Your task to perform on an android device: add a contact in the contacts app Image 0: 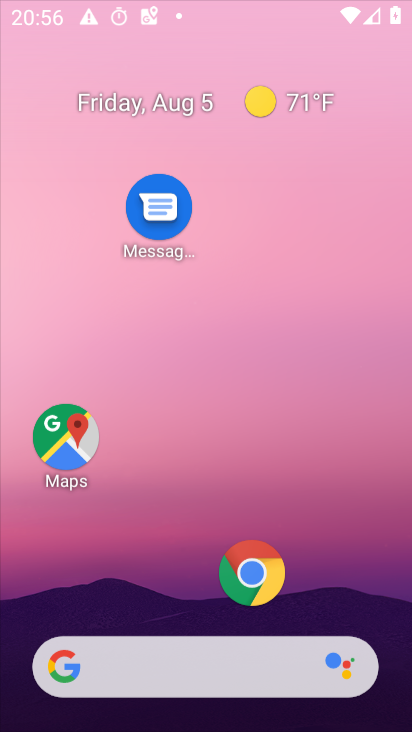
Step 0: press home button
Your task to perform on an android device: add a contact in the contacts app Image 1: 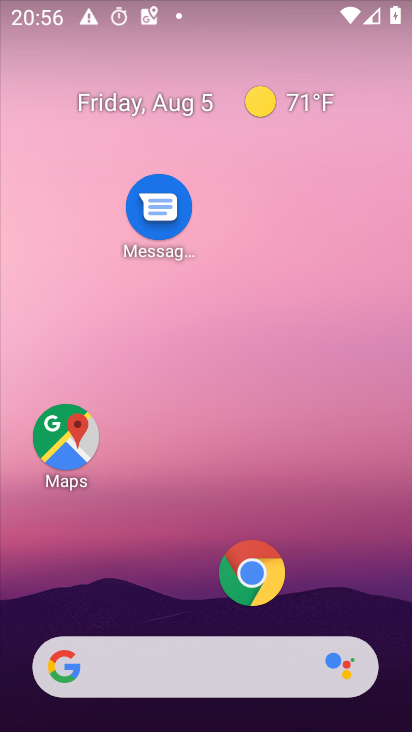
Step 1: drag from (202, 610) to (227, 77)
Your task to perform on an android device: add a contact in the contacts app Image 2: 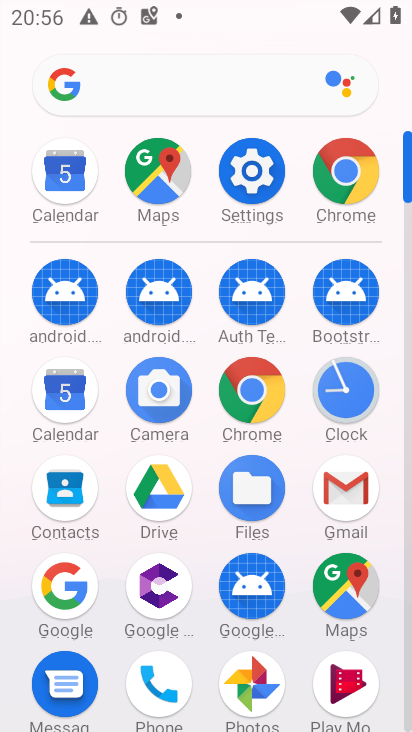
Step 2: click (62, 384)
Your task to perform on an android device: add a contact in the contacts app Image 3: 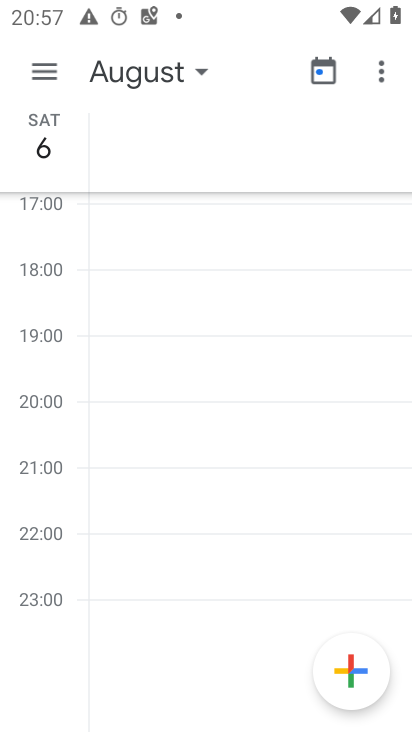
Step 3: press home button
Your task to perform on an android device: add a contact in the contacts app Image 4: 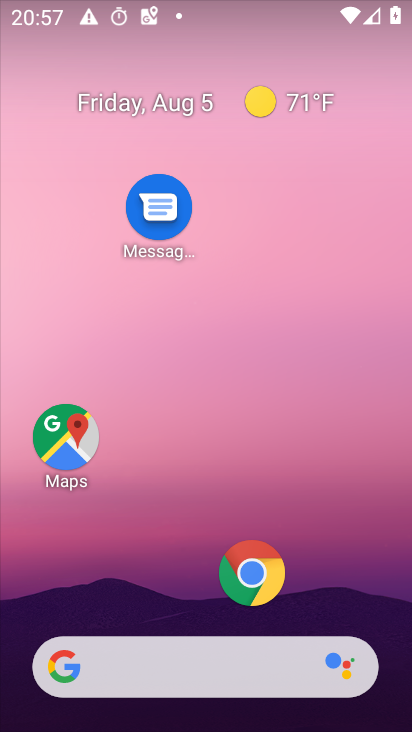
Step 4: drag from (184, 608) to (254, 118)
Your task to perform on an android device: add a contact in the contacts app Image 5: 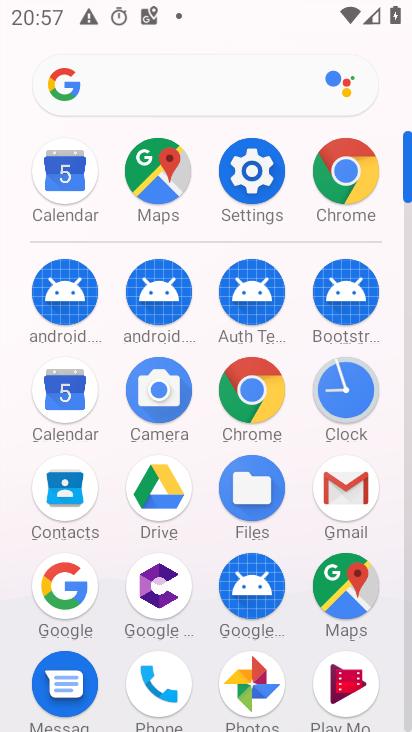
Step 5: drag from (199, 629) to (235, 265)
Your task to perform on an android device: add a contact in the contacts app Image 6: 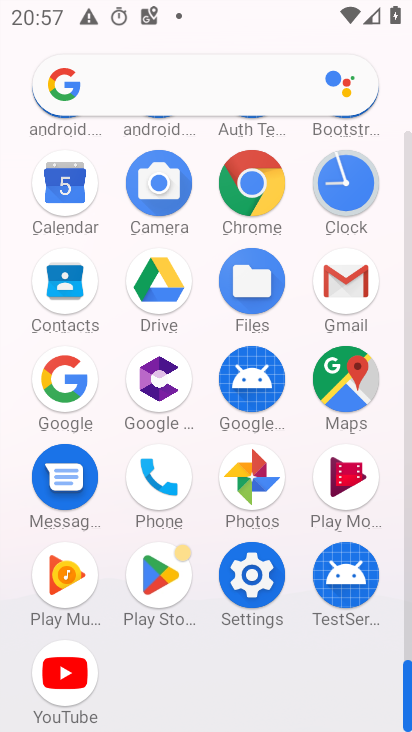
Step 6: click (66, 288)
Your task to perform on an android device: add a contact in the contacts app Image 7: 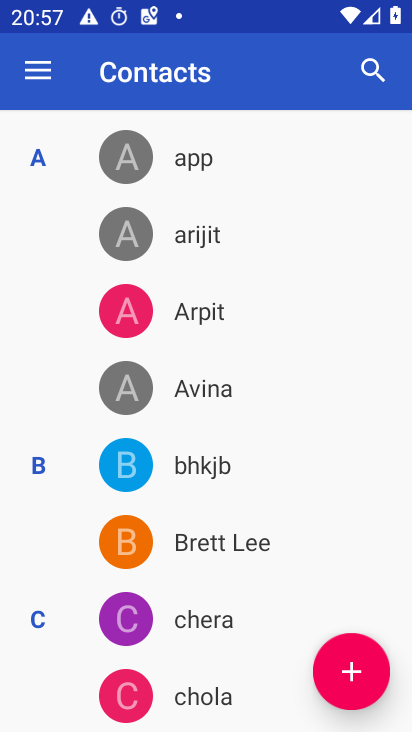
Step 7: click (352, 660)
Your task to perform on an android device: add a contact in the contacts app Image 8: 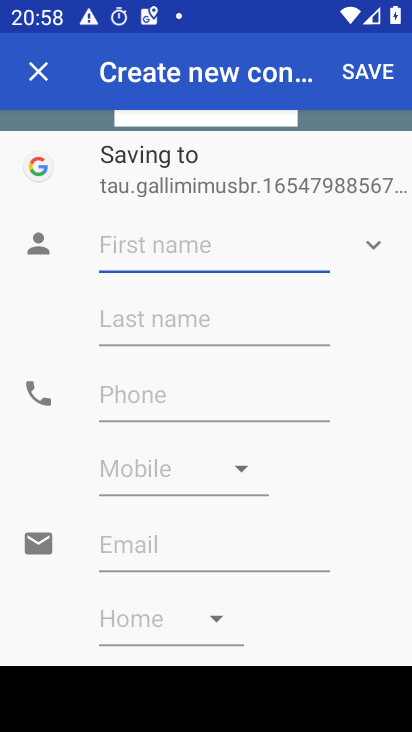
Step 8: type "aparna"
Your task to perform on an android device: add a contact in the contacts app Image 9: 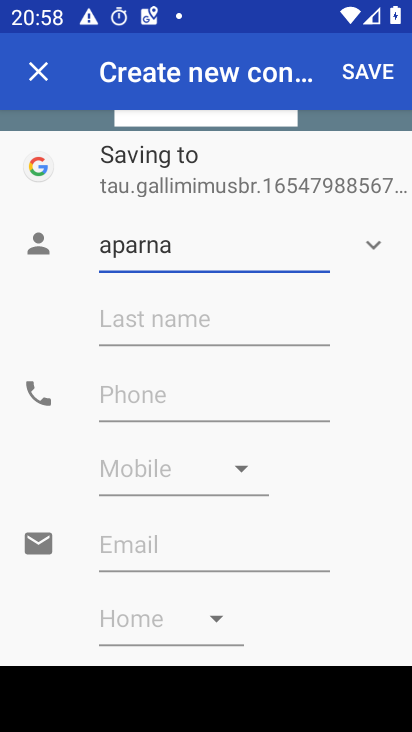
Step 9: click (371, 71)
Your task to perform on an android device: add a contact in the contacts app Image 10: 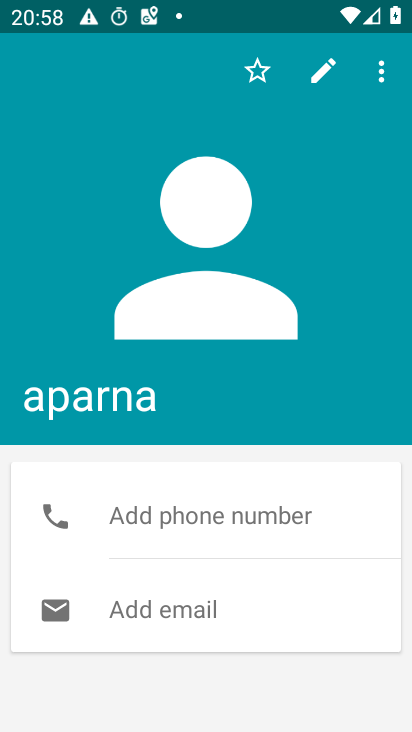
Step 10: task complete